Your task to perform on an android device: Toggle the flashlight Image 0: 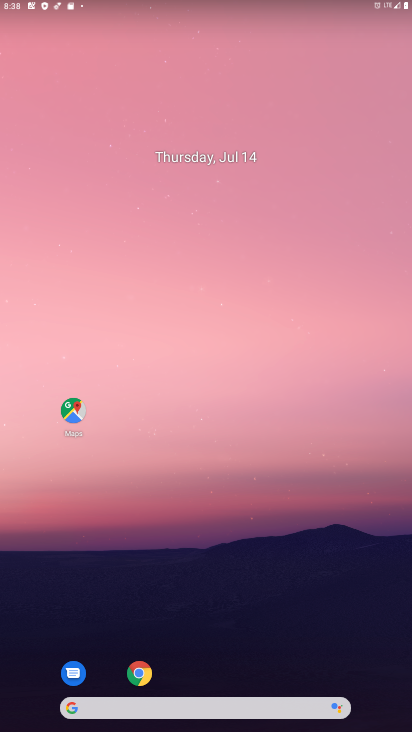
Step 0: drag from (213, 706) to (319, 193)
Your task to perform on an android device: Toggle the flashlight Image 1: 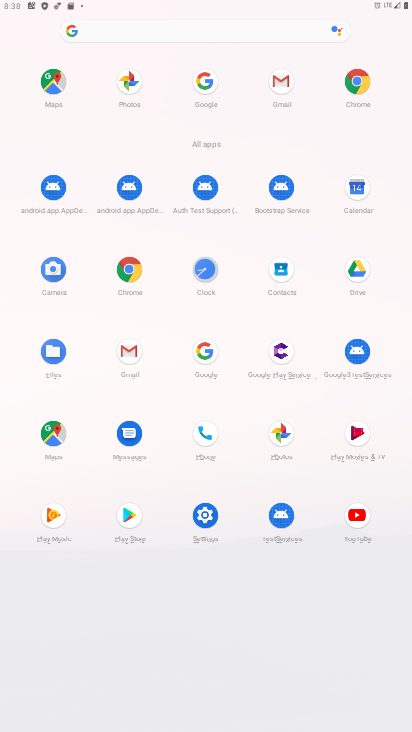
Step 1: click (205, 514)
Your task to perform on an android device: Toggle the flashlight Image 2: 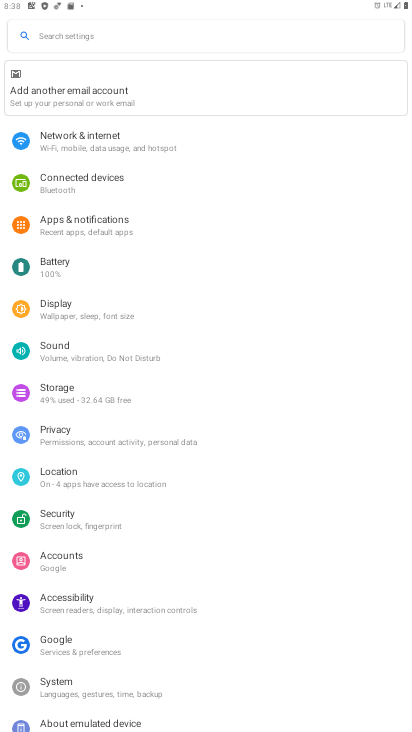
Step 2: click (105, 215)
Your task to perform on an android device: Toggle the flashlight Image 3: 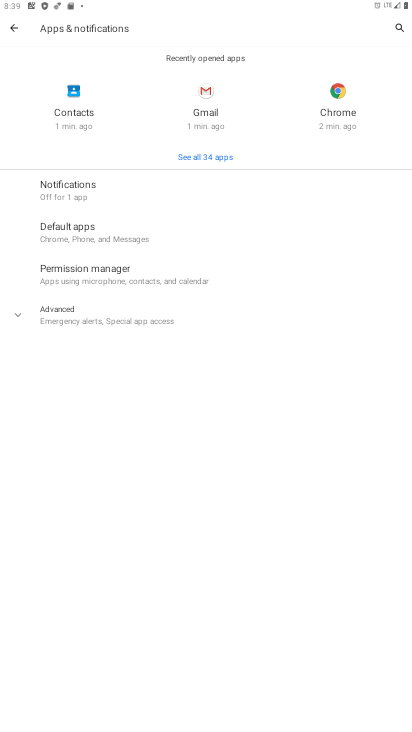
Step 3: click (78, 315)
Your task to perform on an android device: Toggle the flashlight Image 4: 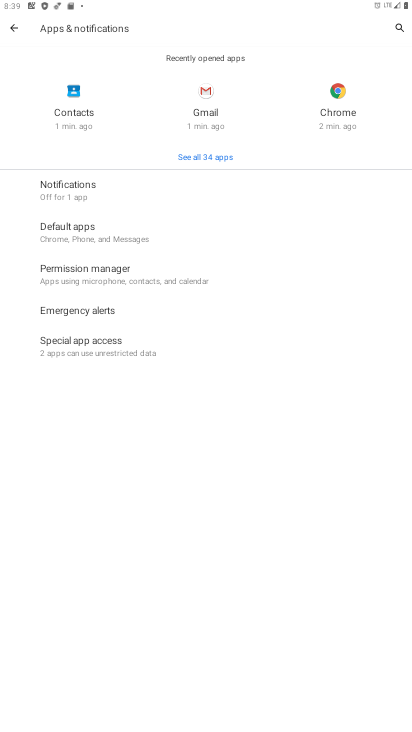
Step 4: press back button
Your task to perform on an android device: Toggle the flashlight Image 5: 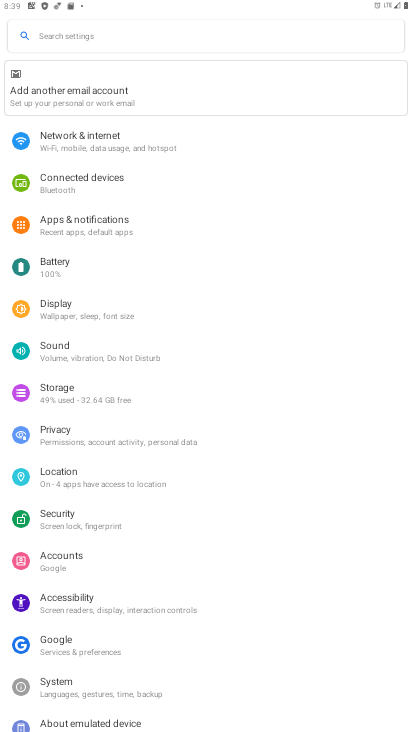
Step 5: click (114, 305)
Your task to perform on an android device: Toggle the flashlight Image 6: 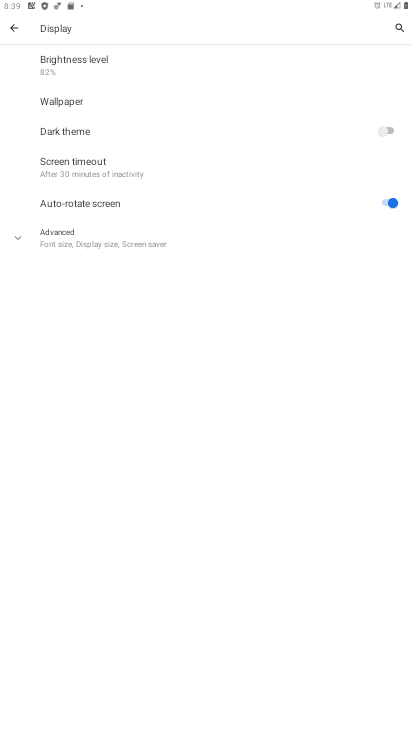
Step 6: click (110, 250)
Your task to perform on an android device: Toggle the flashlight Image 7: 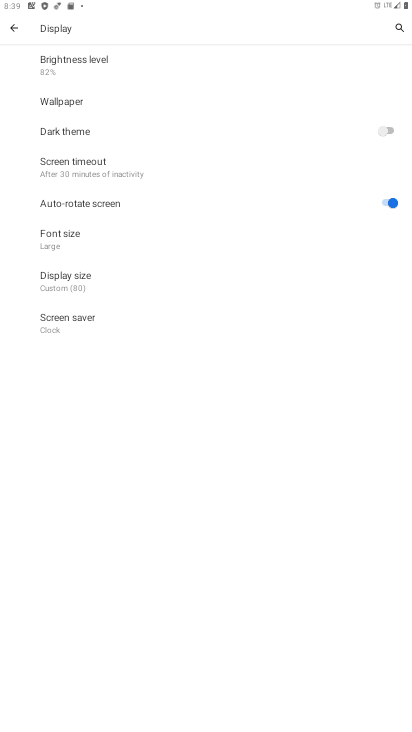
Step 7: click (98, 326)
Your task to perform on an android device: Toggle the flashlight Image 8: 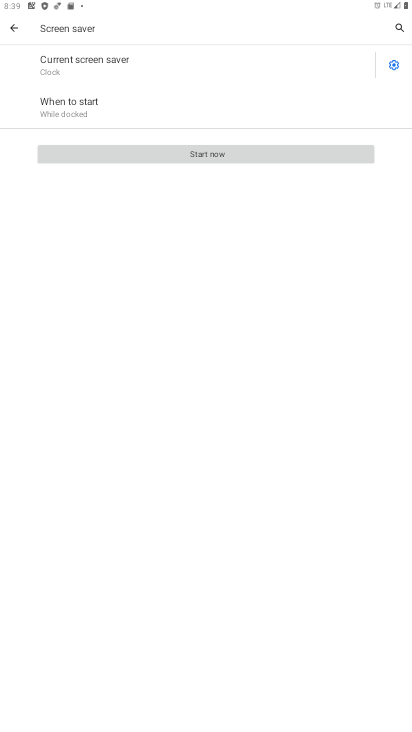
Step 8: task complete